Your task to perform on an android device: Show me the alarms in the clock app Image 0: 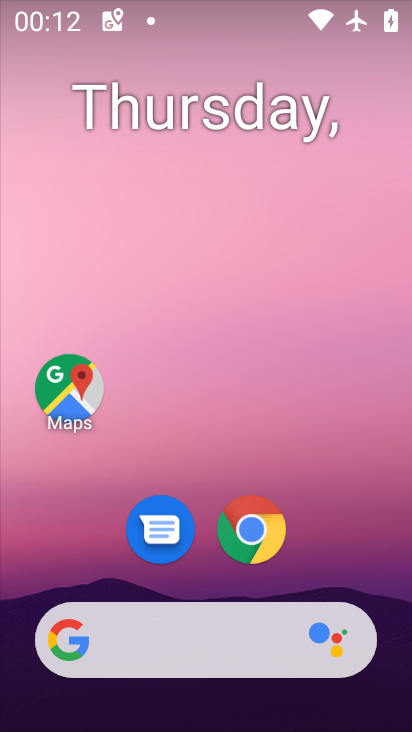
Step 0: drag from (397, 620) to (310, 151)
Your task to perform on an android device: Show me the alarms in the clock app Image 1: 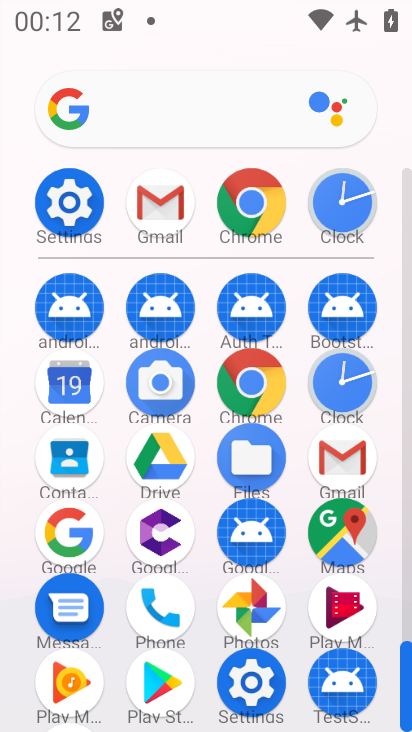
Step 1: click (340, 380)
Your task to perform on an android device: Show me the alarms in the clock app Image 2: 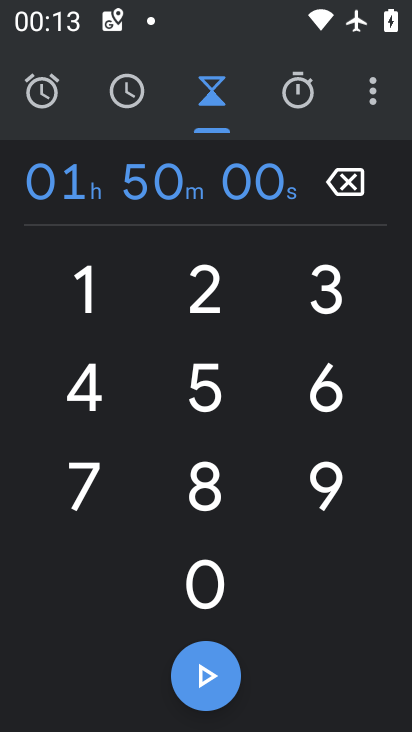
Step 2: click (41, 87)
Your task to perform on an android device: Show me the alarms in the clock app Image 3: 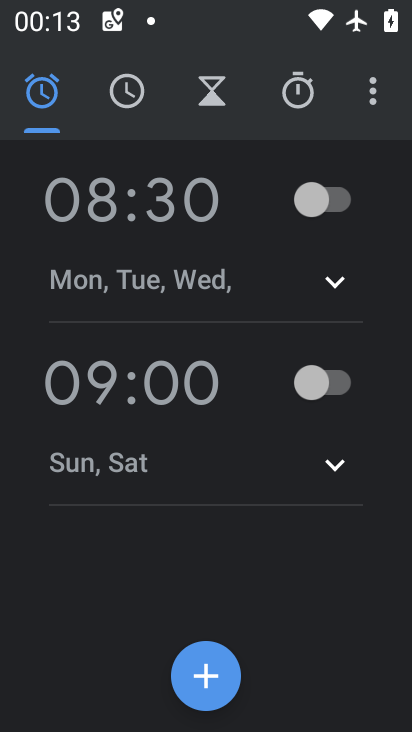
Step 3: task complete